Your task to perform on an android device: clear all cookies in the chrome app Image 0: 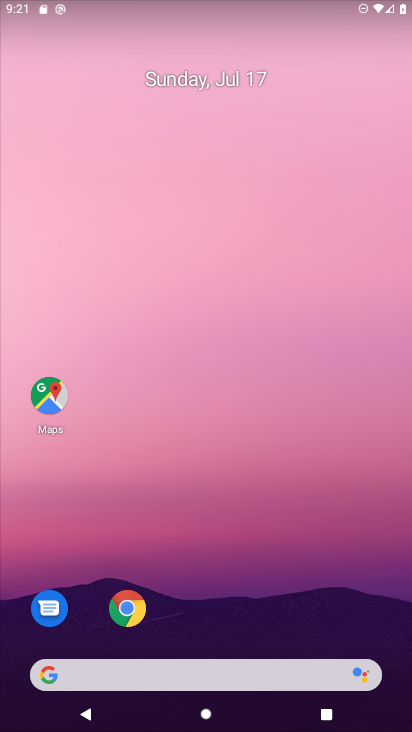
Step 0: click (126, 610)
Your task to perform on an android device: clear all cookies in the chrome app Image 1: 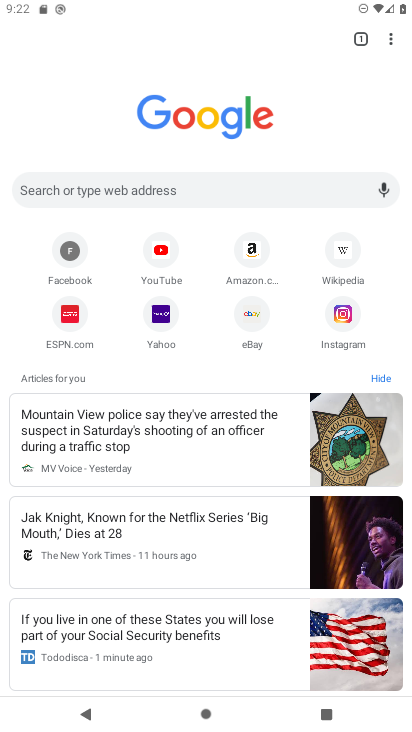
Step 1: click (391, 39)
Your task to perform on an android device: clear all cookies in the chrome app Image 2: 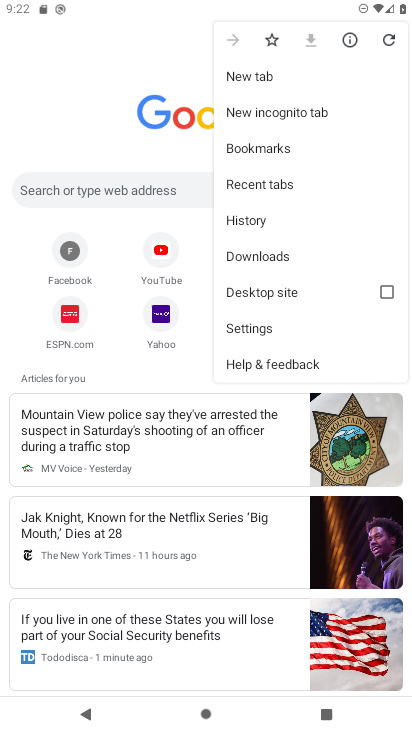
Step 2: click (247, 331)
Your task to perform on an android device: clear all cookies in the chrome app Image 3: 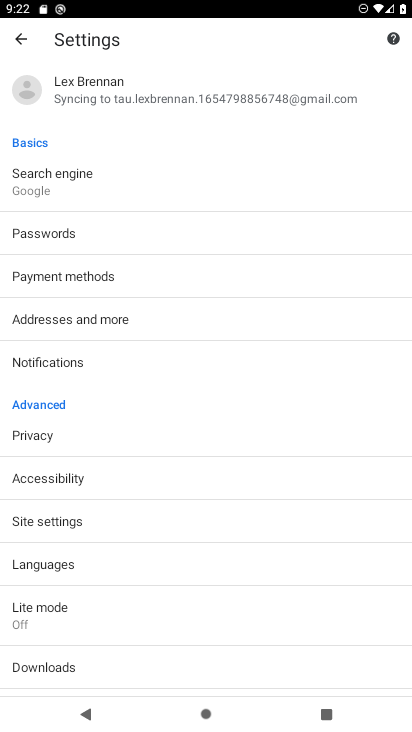
Step 3: drag from (60, 621) to (85, 527)
Your task to perform on an android device: clear all cookies in the chrome app Image 4: 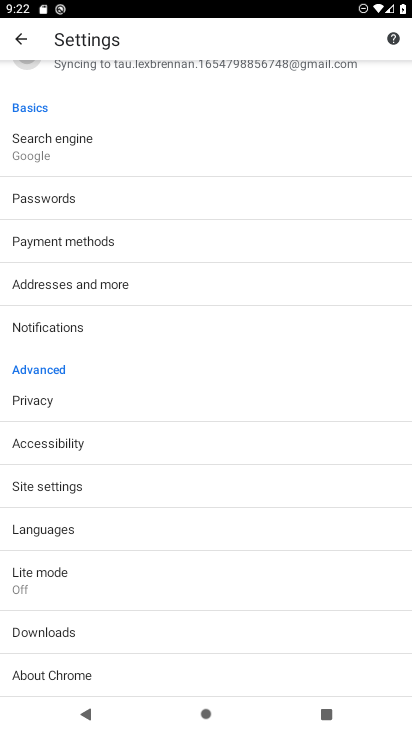
Step 4: click (45, 402)
Your task to perform on an android device: clear all cookies in the chrome app Image 5: 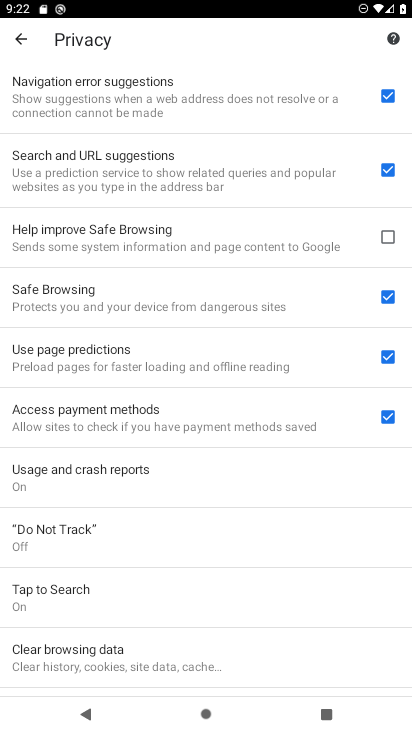
Step 5: click (116, 653)
Your task to perform on an android device: clear all cookies in the chrome app Image 6: 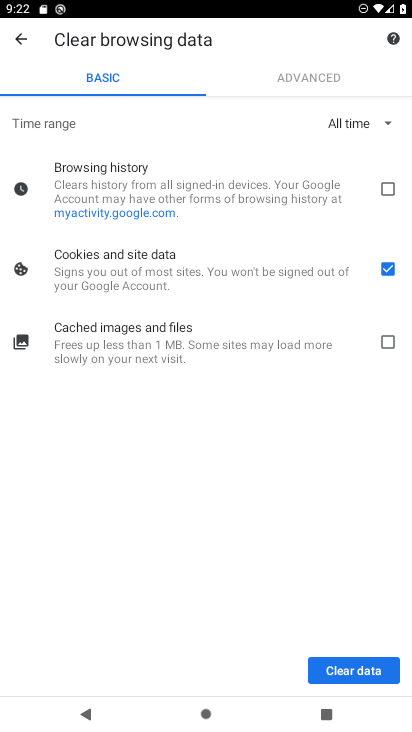
Step 6: click (346, 677)
Your task to perform on an android device: clear all cookies in the chrome app Image 7: 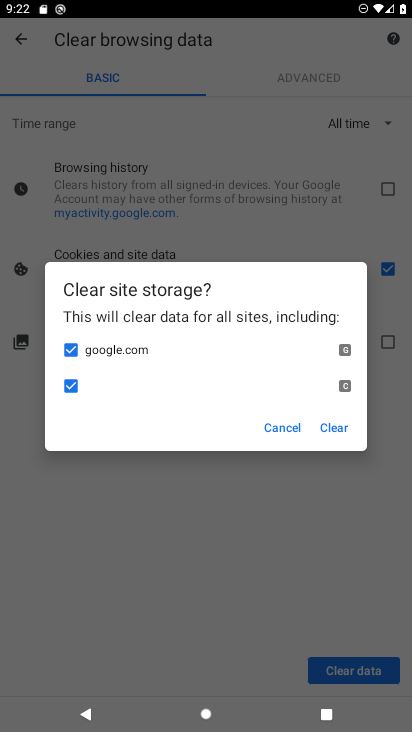
Step 7: click (332, 425)
Your task to perform on an android device: clear all cookies in the chrome app Image 8: 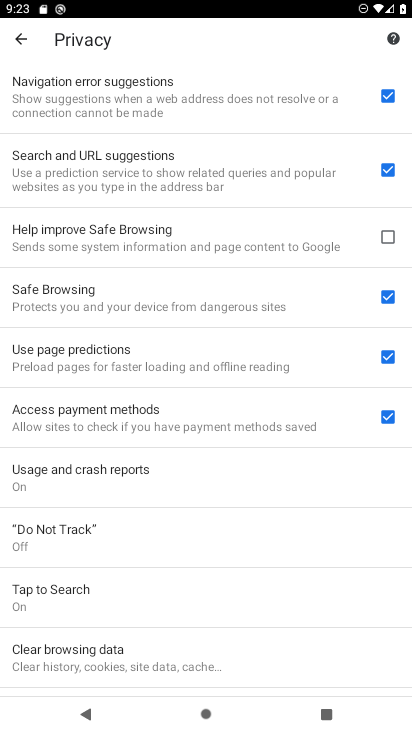
Step 8: task complete